Your task to perform on an android device: What's the news in Jamaica? Image 0: 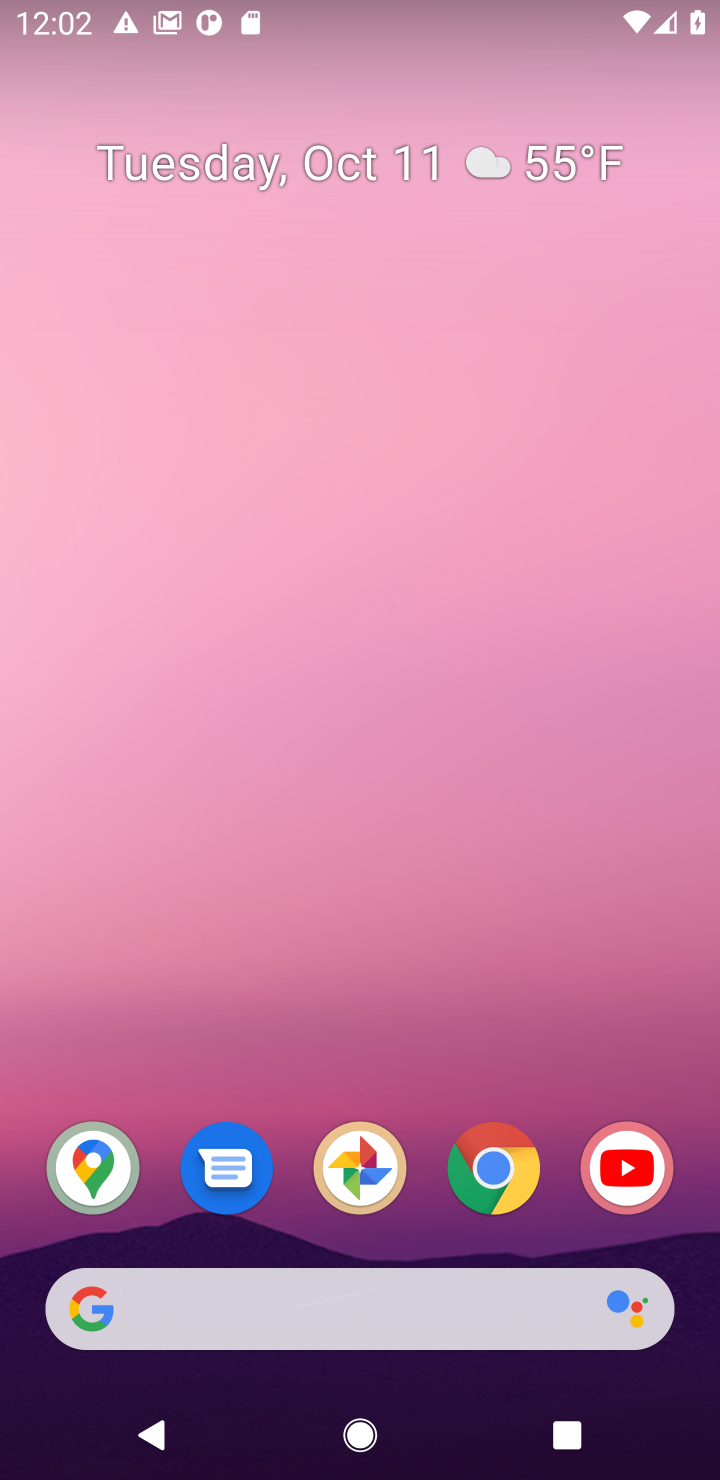
Step 0: drag from (274, 1170) to (404, 295)
Your task to perform on an android device: What's the news in Jamaica? Image 1: 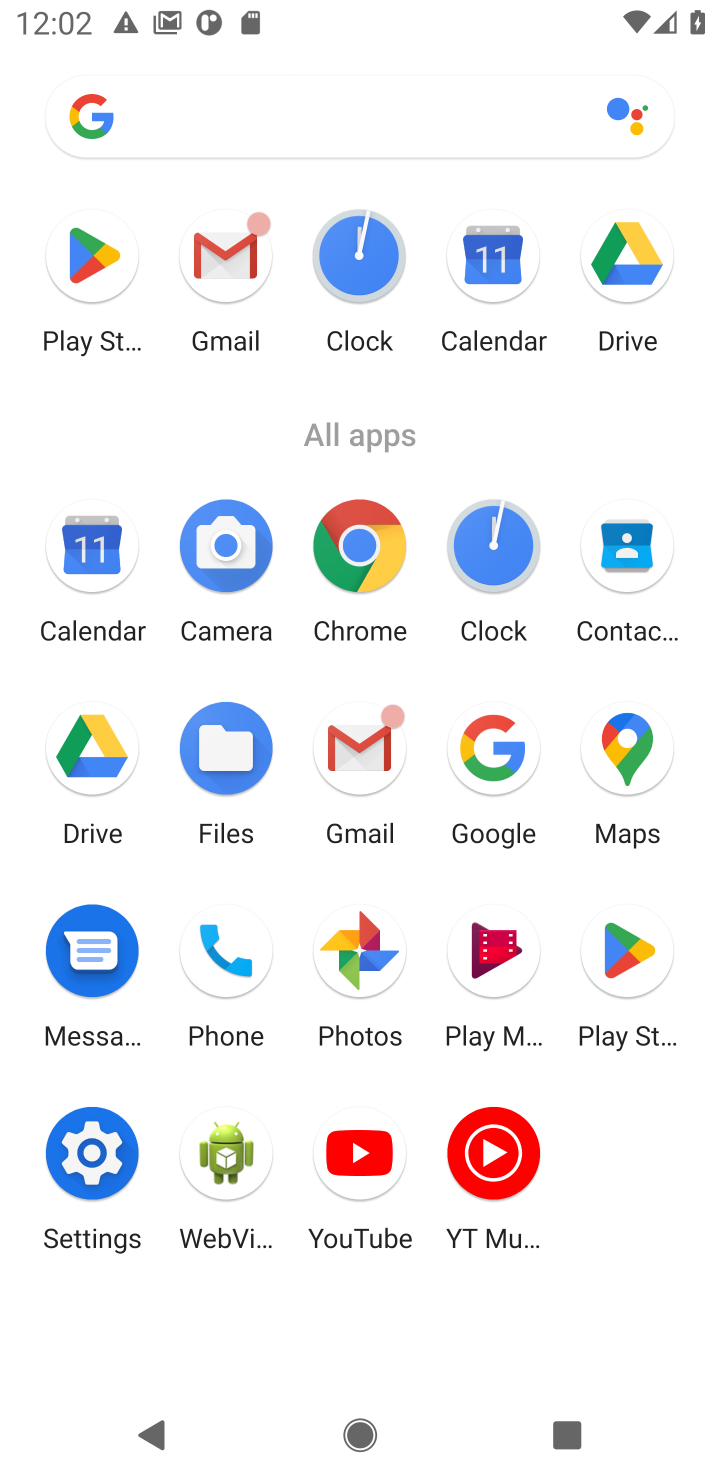
Step 1: click (481, 747)
Your task to perform on an android device: What's the news in Jamaica? Image 2: 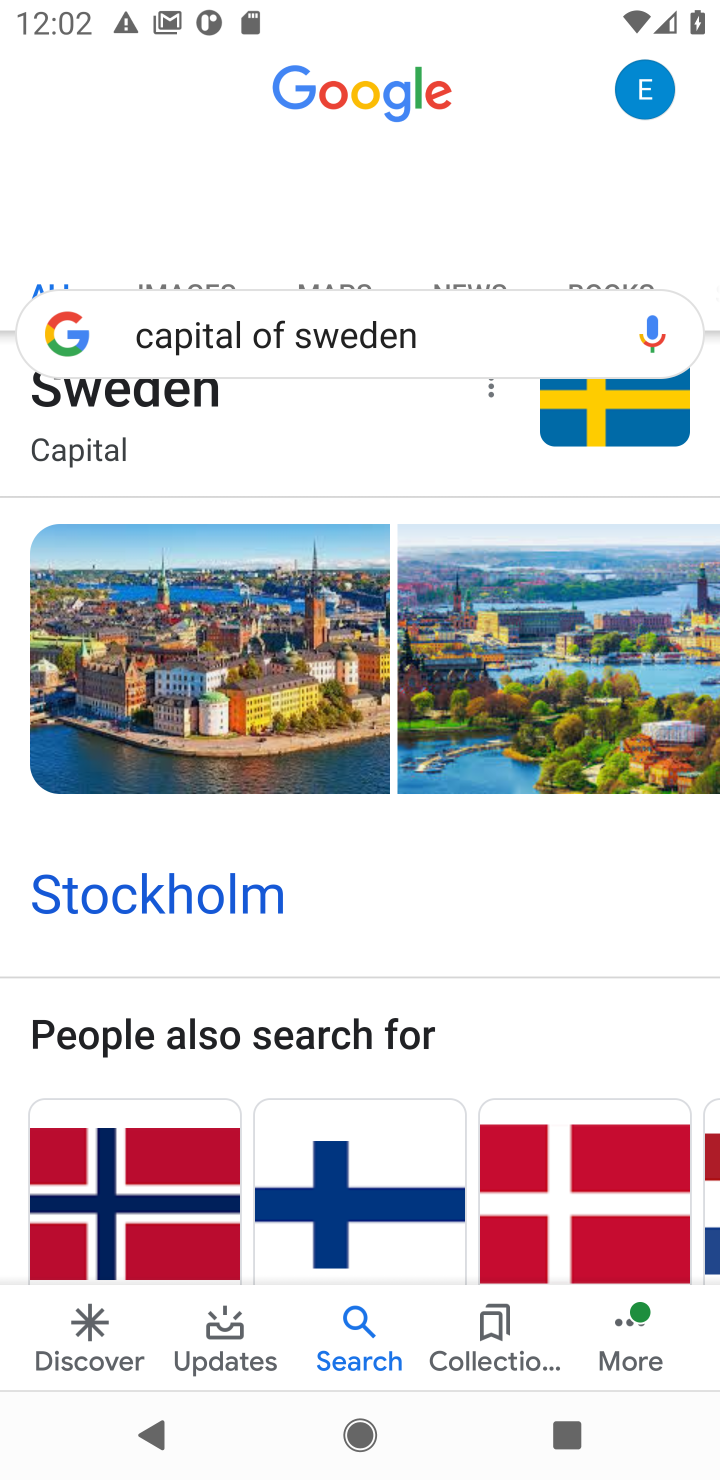
Step 2: click (470, 337)
Your task to perform on an android device: What's the news in Jamaica? Image 3: 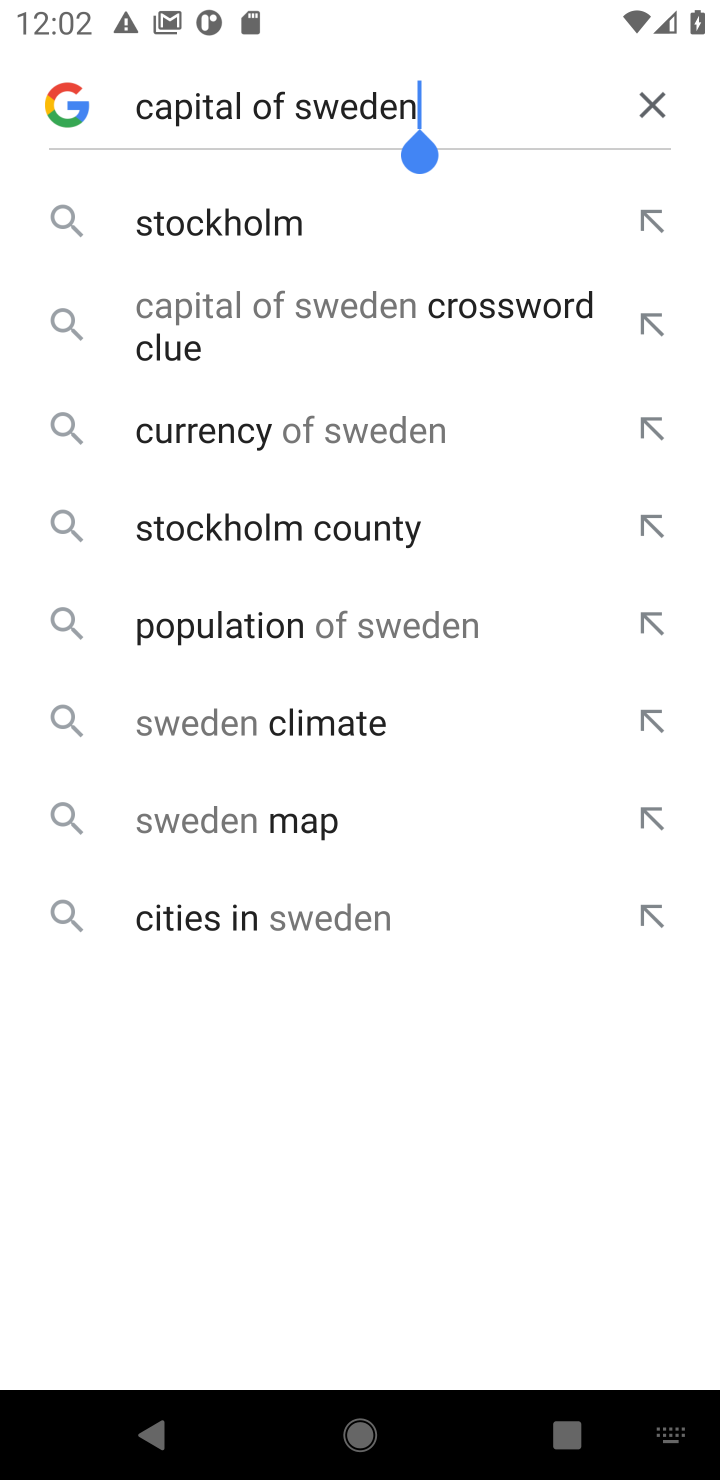
Step 3: click (653, 110)
Your task to perform on an android device: What's the news in Jamaica? Image 4: 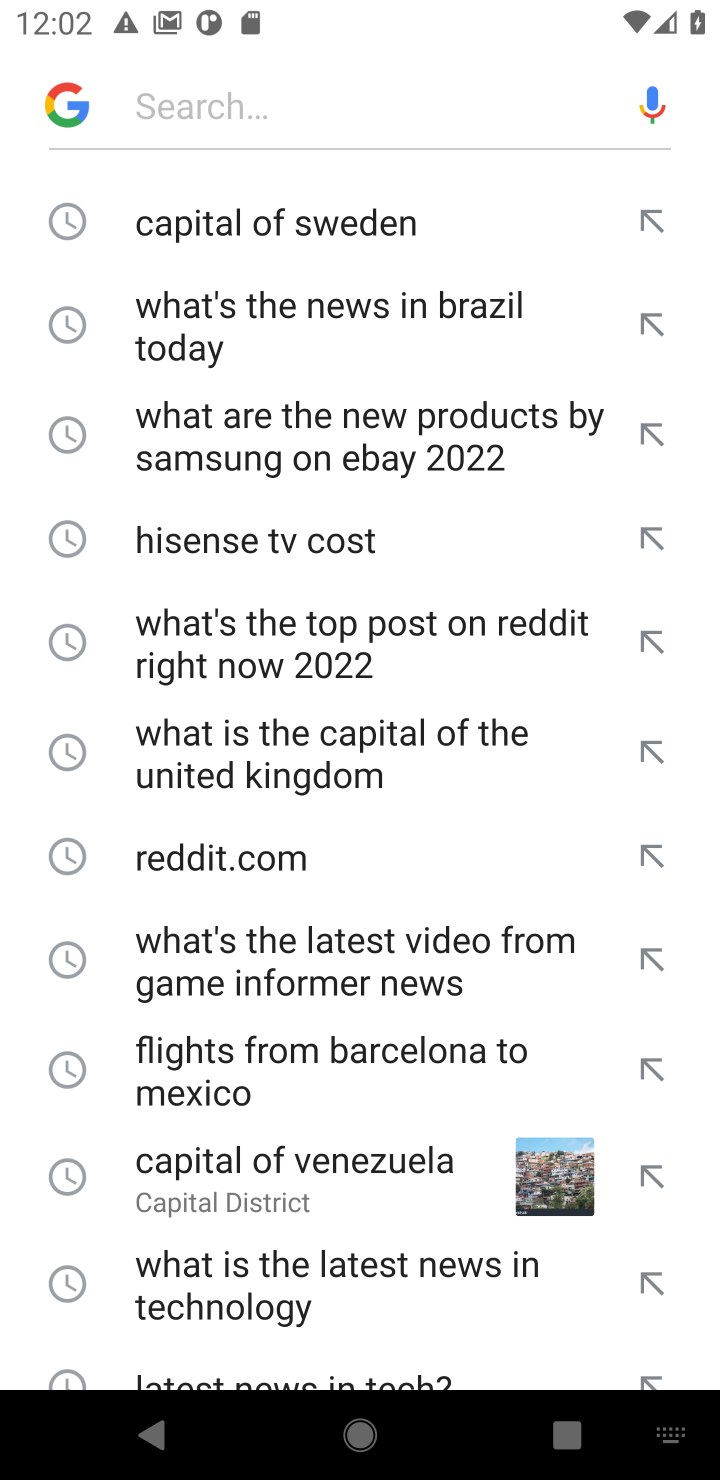
Step 4: type "news in Jamaica"
Your task to perform on an android device: What's the news in Jamaica? Image 5: 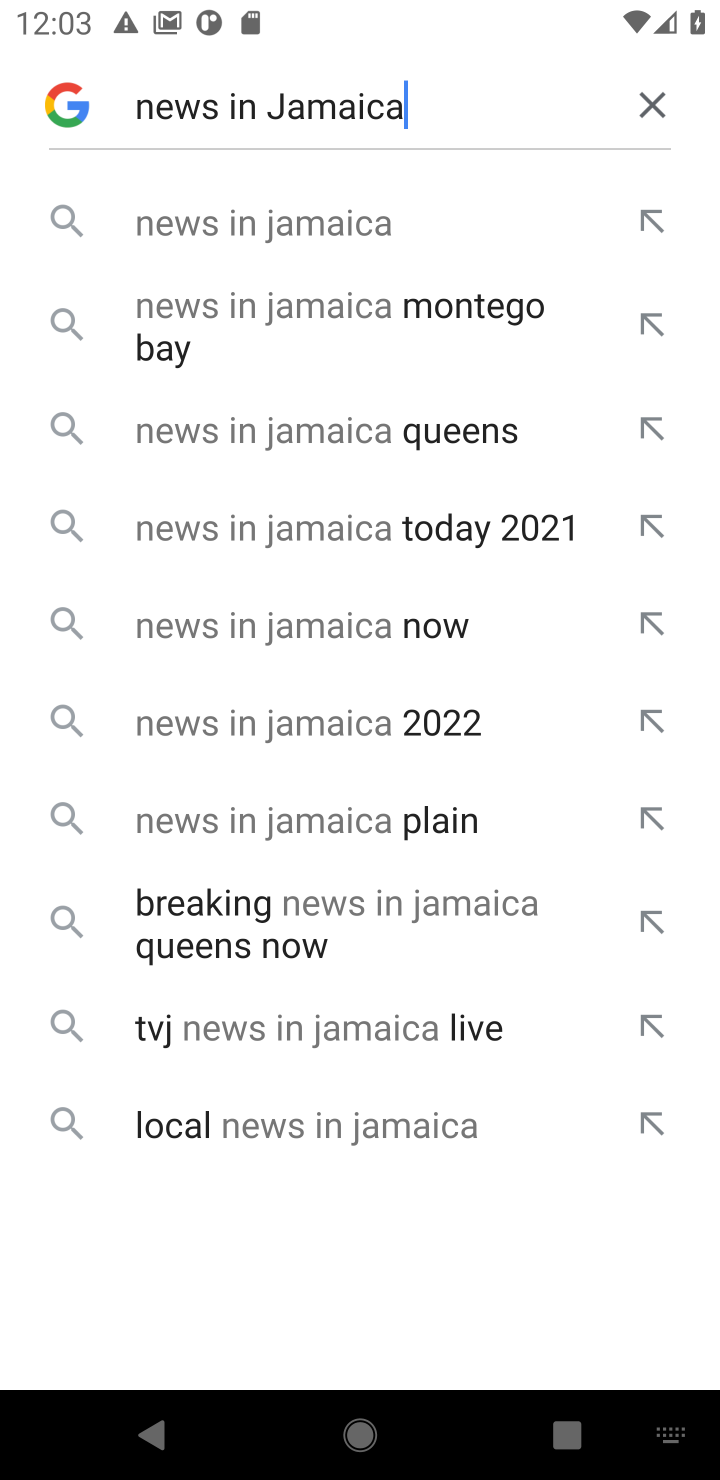
Step 5: click (352, 230)
Your task to perform on an android device: What's the news in Jamaica? Image 6: 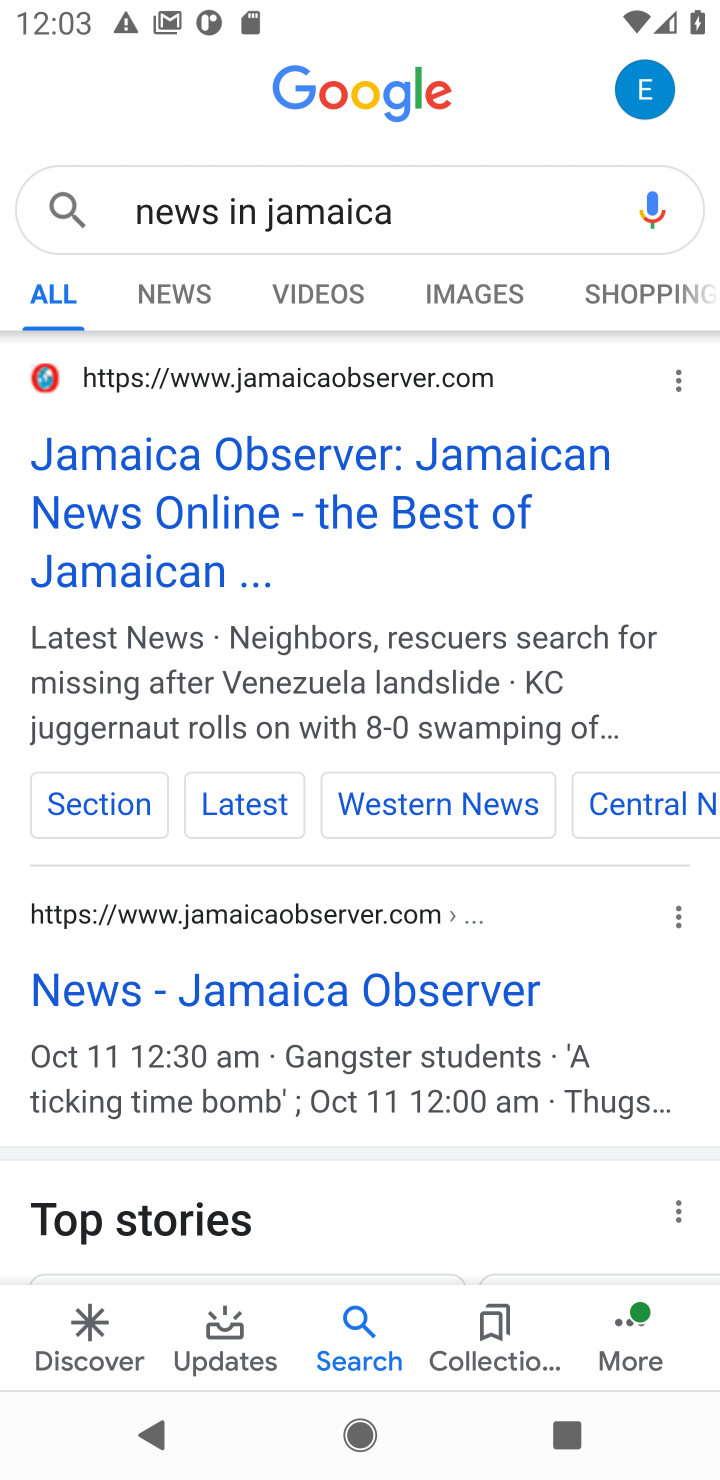
Step 6: click (193, 300)
Your task to perform on an android device: What's the news in Jamaica? Image 7: 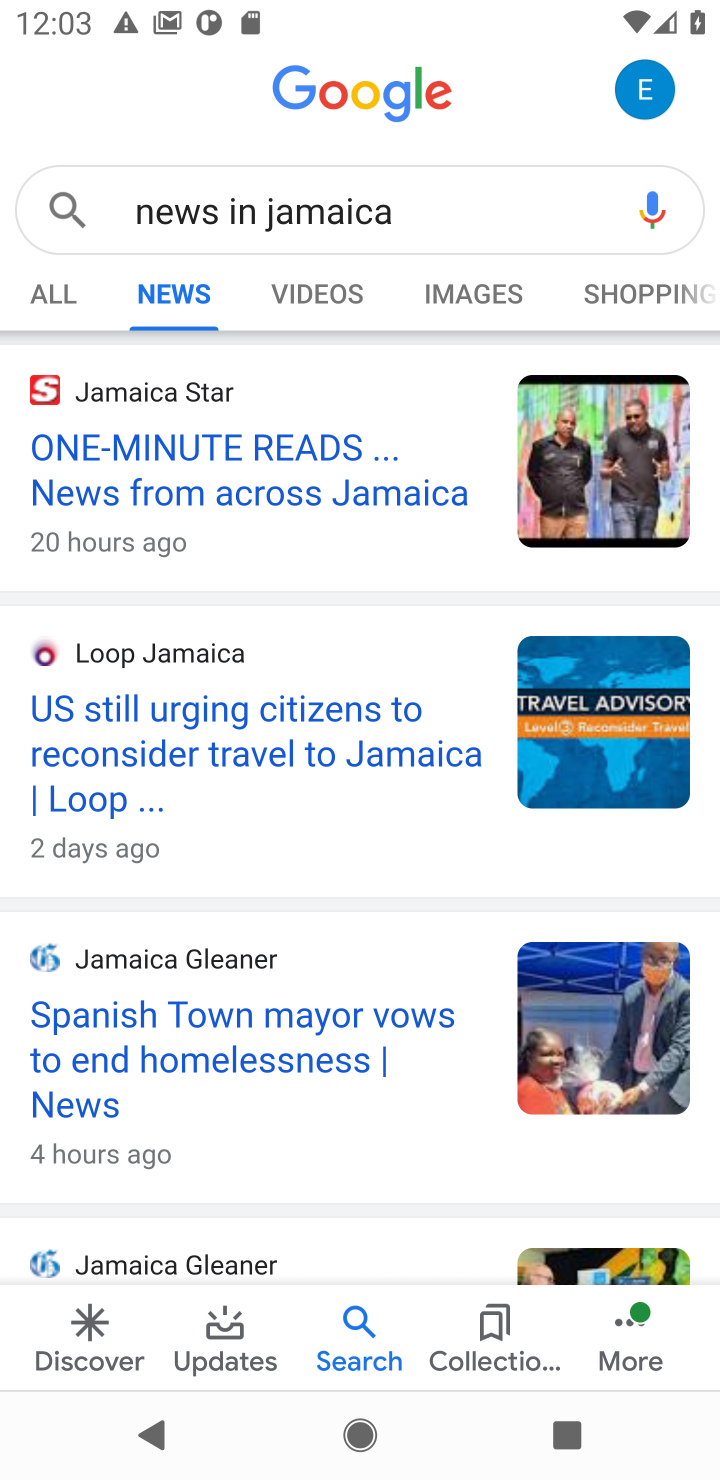
Step 7: task complete